Your task to perform on an android device: Go to ESPN.com Image 0: 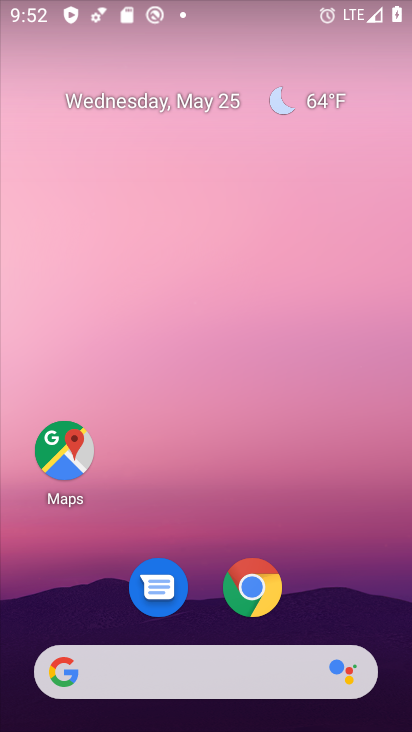
Step 0: click (239, 594)
Your task to perform on an android device: Go to ESPN.com Image 1: 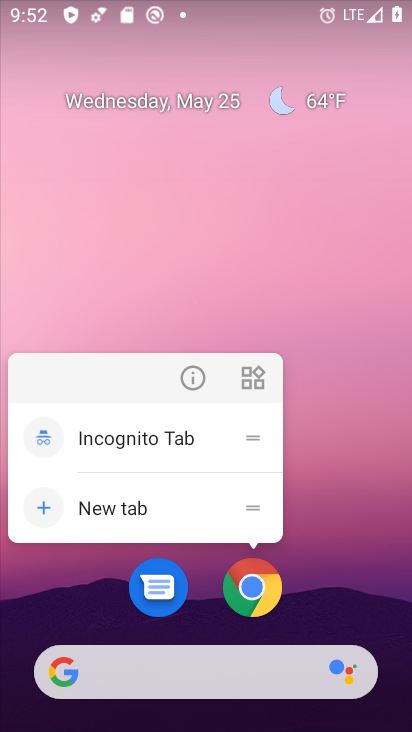
Step 1: click (242, 591)
Your task to perform on an android device: Go to ESPN.com Image 2: 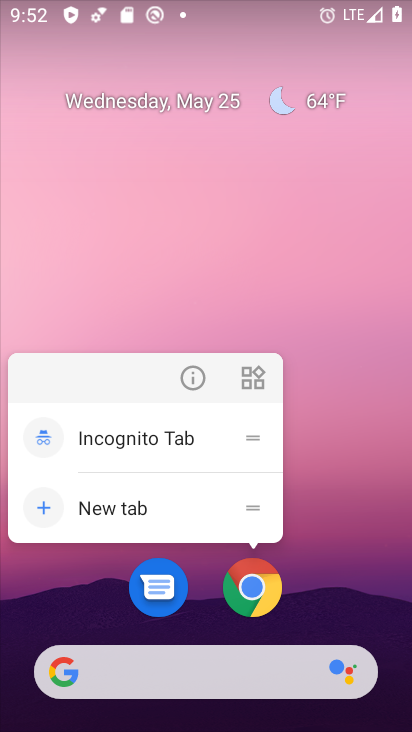
Step 2: click (246, 591)
Your task to perform on an android device: Go to ESPN.com Image 3: 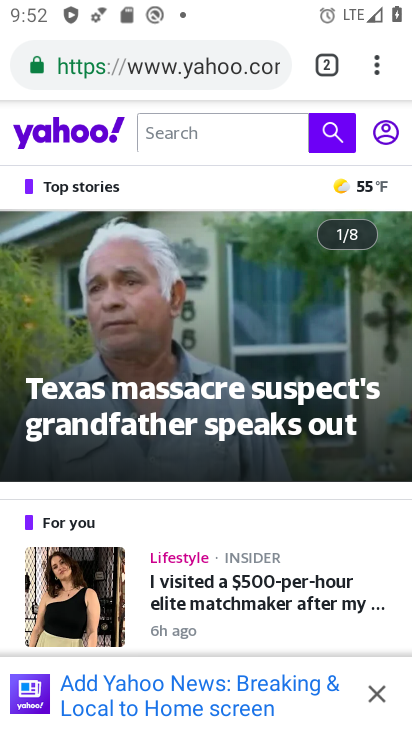
Step 3: drag from (375, 59) to (334, 116)
Your task to perform on an android device: Go to ESPN.com Image 4: 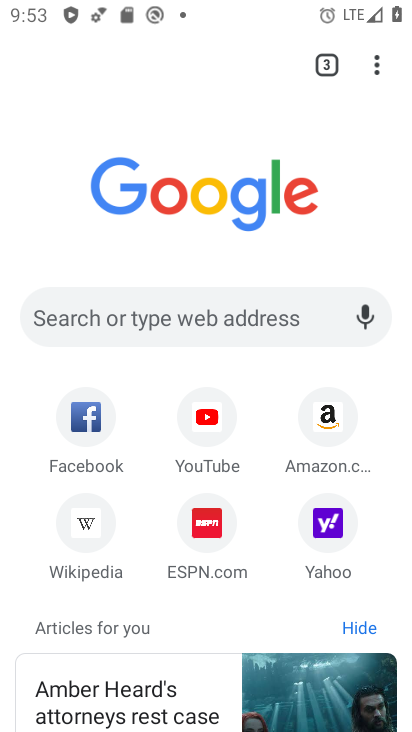
Step 4: click (202, 524)
Your task to perform on an android device: Go to ESPN.com Image 5: 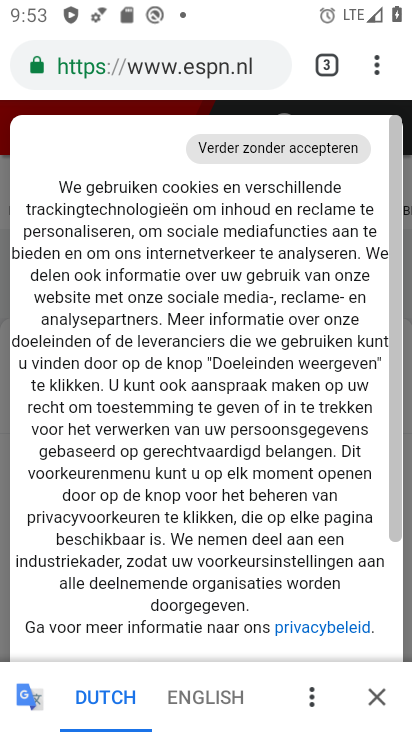
Step 5: task complete